Your task to perform on an android device: Show me recent news Image 0: 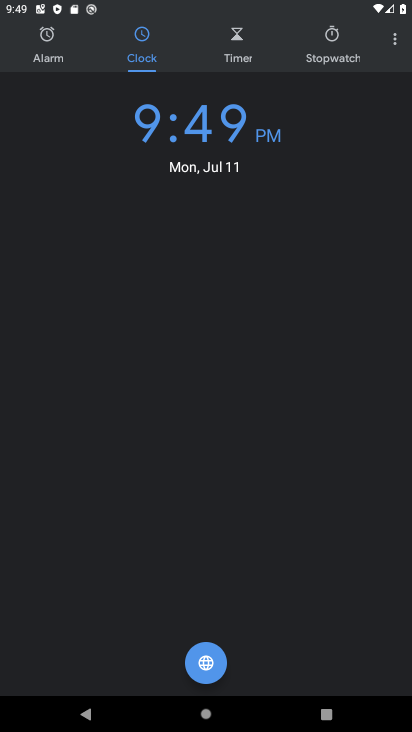
Step 0: press home button
Your task to perform on an android device: Show me recent news Image 1: 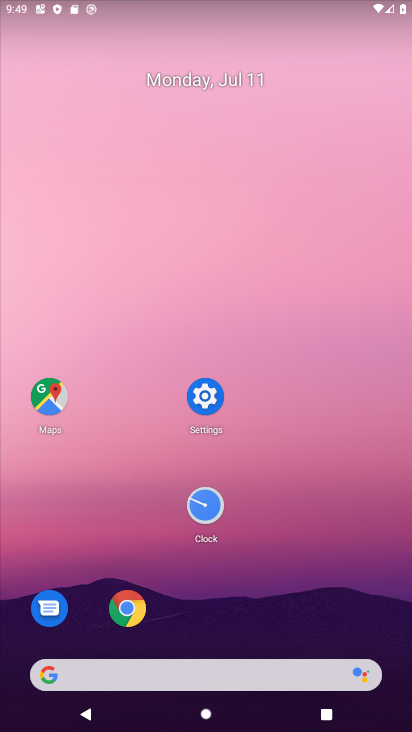
Step 1: task complete